Your task to perform on an android device: What is the news today? Image 0: 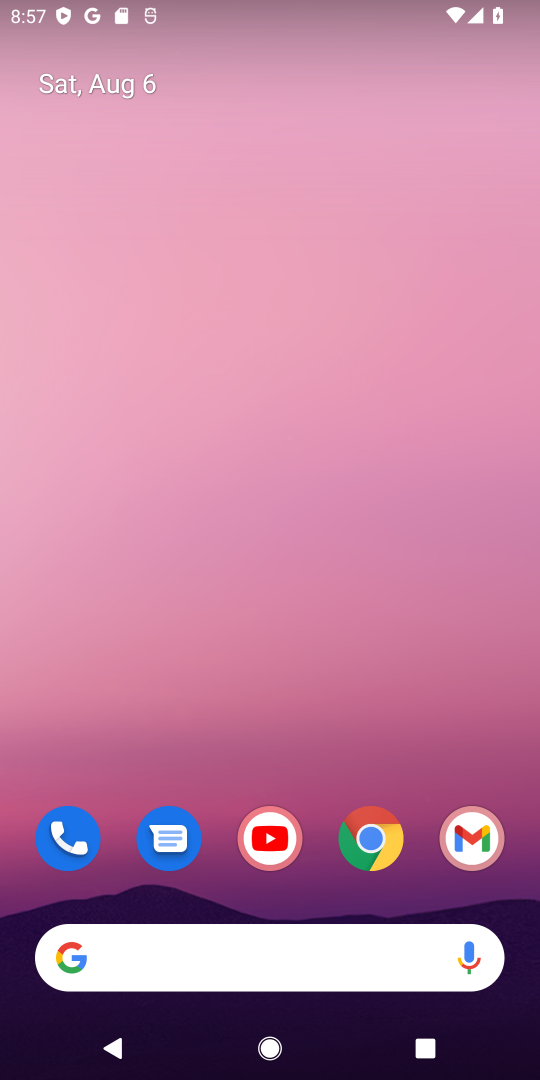
Step 0: click (217, 941)
Your task to perform on an android device: What is the news today? Image 1: 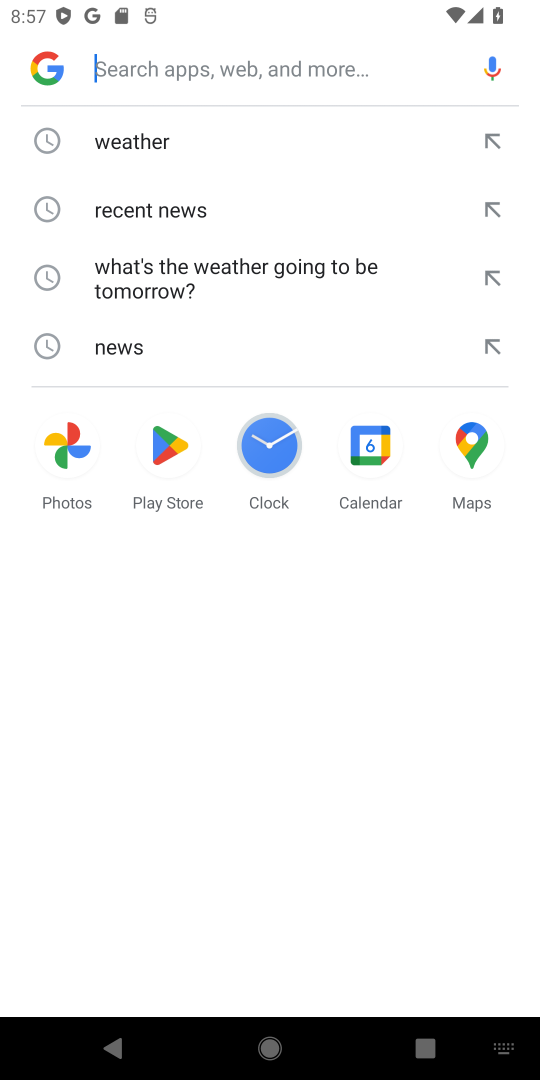
Step 1: type "news today"
Your task to perform on an android device: What is the news today? Image 2: 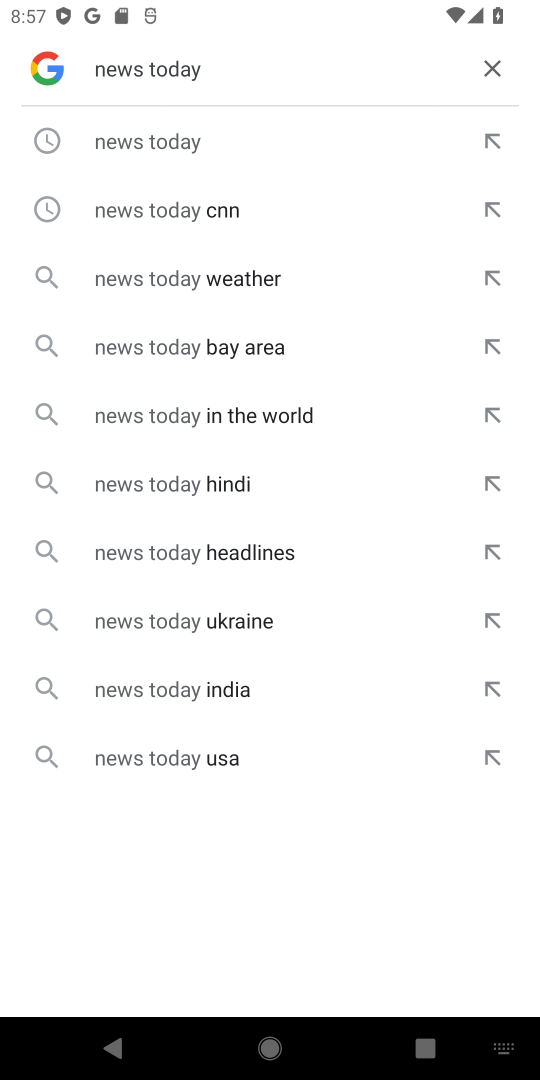
Step 2: click (249, 151)
Your task to perform on an android device: What is the news today? Image 3: 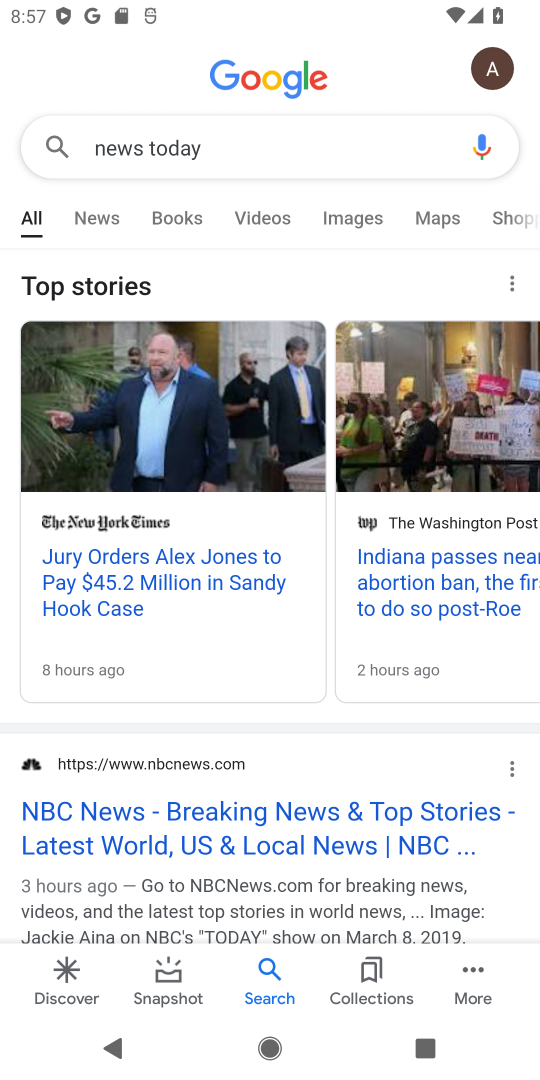
Step 3: task complete